Your task to perform on an android device: Is it going to rain this weekend? Image 0: 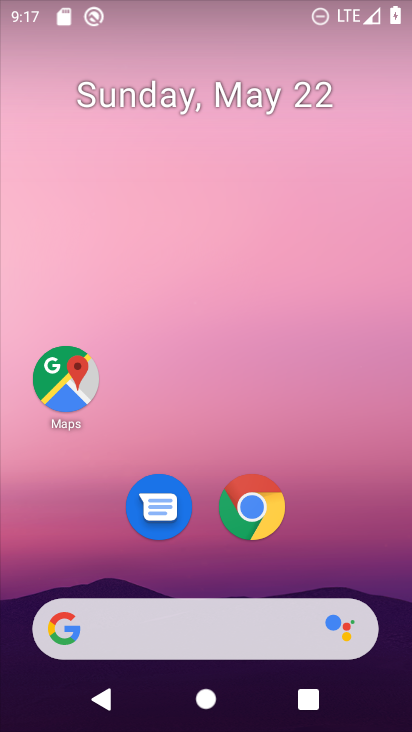
Step 0: click (155, 638)
Your task to perform on an android device: Is it going to rain this weekend? Image 1: 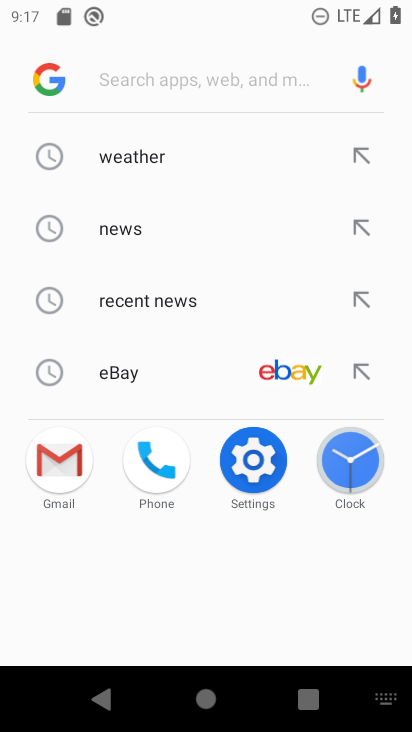
Step 1: click (192, 597)
Your task to perform on an android device: Is it going to rain this weekend? Image 2: 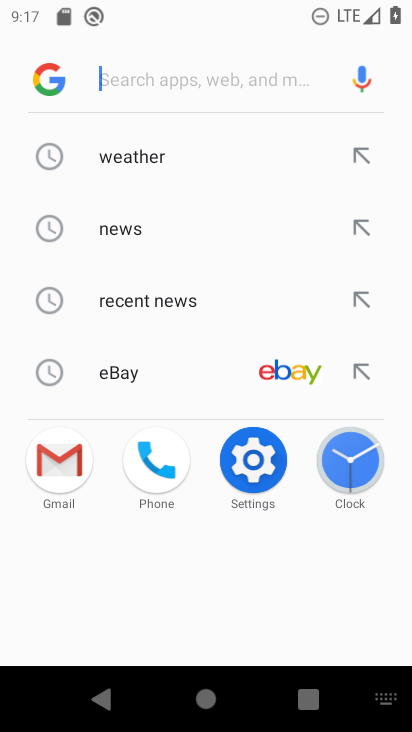
Step 2: type "Is it going to rain this weekend?"
Your task to perform on an android device: Is it going to rain this weekend? Image 3: 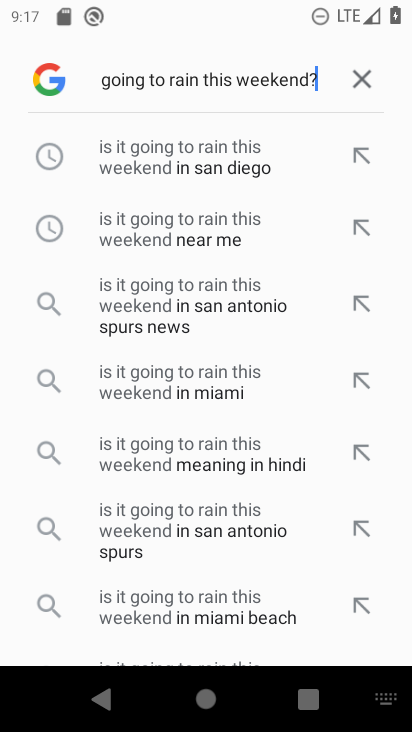
Step 3: click (247, 229)
Your task to perform on an android device: Is it going to rain this weekend? Image 4: 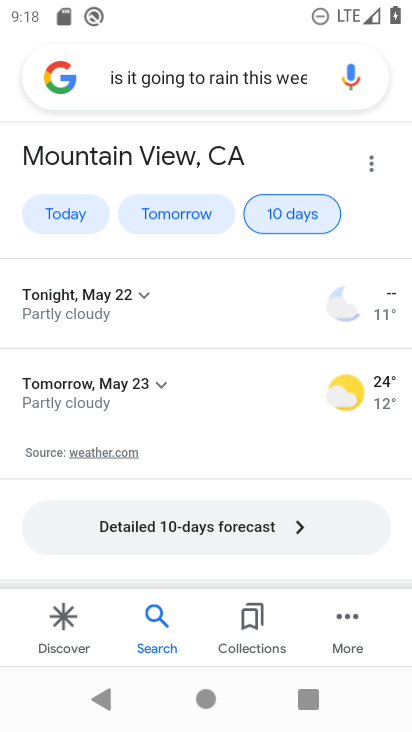
Step 4: task complete